Your task to perform on an android device: choose inbox layout in the gmail app Image 0: 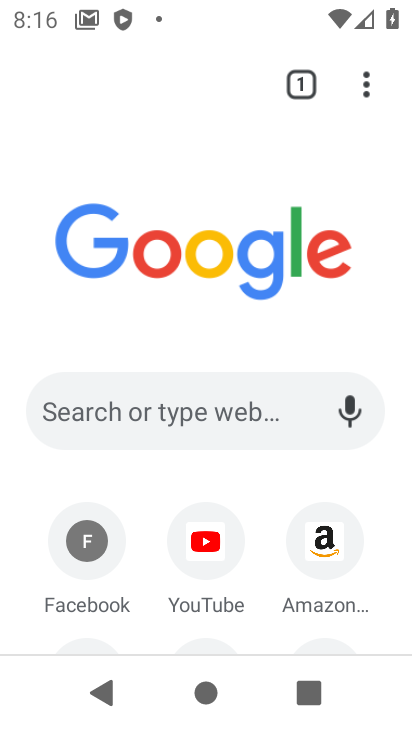
Step 0: press back button
Your task to perform on an android device: choose inbox layout in the gmail app Image 1: 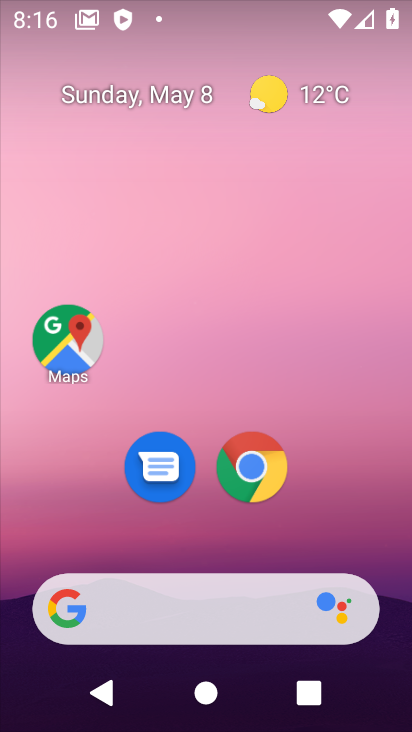
Step 1: drag from (217, 515) to (323, 58)
Your task to perform on an android device: choose inbox layout in the gmail app Image 2: 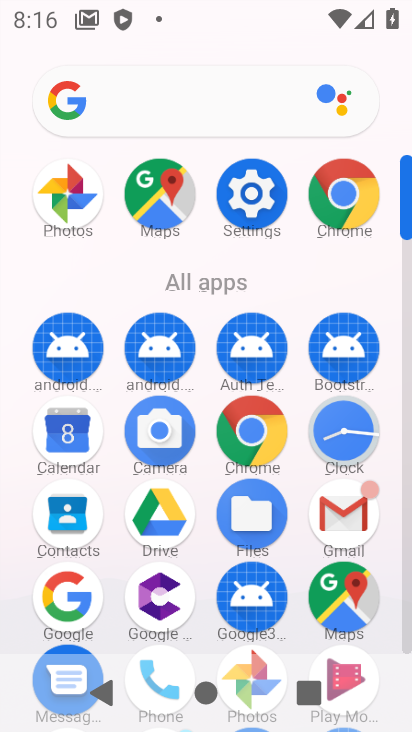
Step 2: click (357, 520)
Your task to perform on an android device: choose inbox layout in the gmail app Image 3: 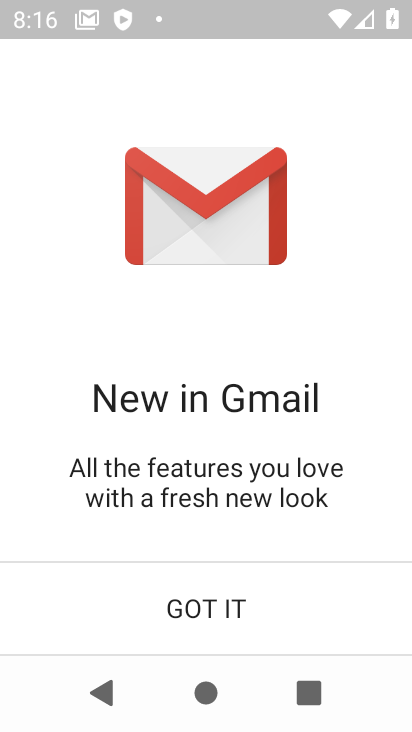
Step 3: click (165, 634)
Your task to perform on an android device: choose inbox layout in the gmail app Image 4: 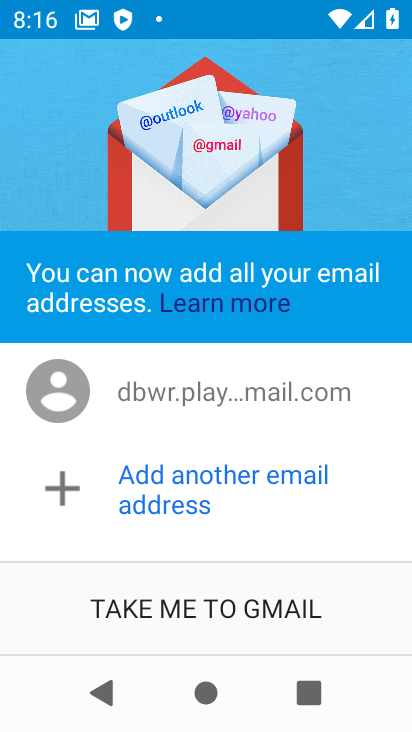
Step 4: click (177, 600)
Your task to perform on an android device: choose inbox layout in the gmail app Image 5: 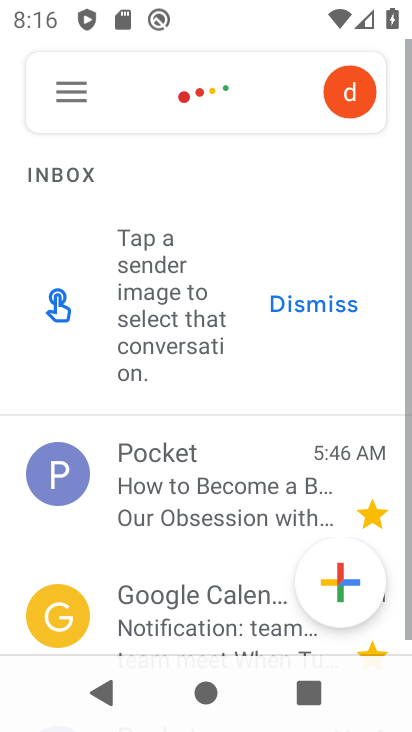
Step 5: click (65, 92)
Your task to perform on an android device: choose inbox layout in the gmail app Image 6: 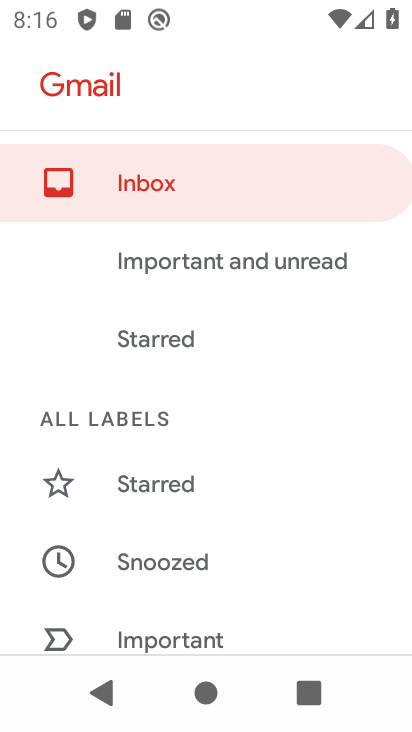
Step 6: drag from (212, 538) to (301, 61)
Your task to perform on an android device: choose inbox layout in the gmail app Image 7: 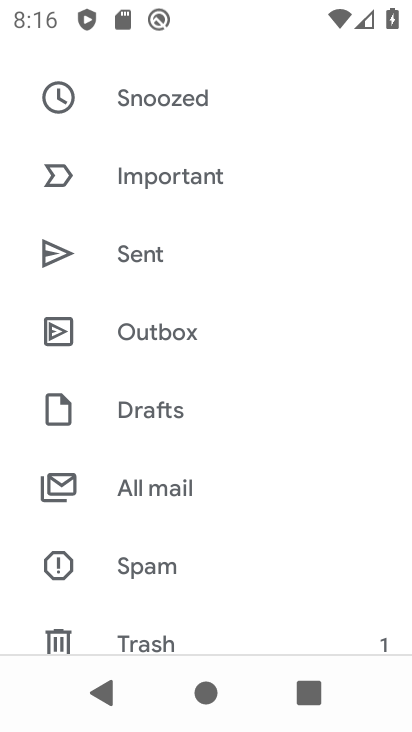
Step 7: drag from (183, 593) to (258, 111)
Your task to perform on an android device: choose inbox layout in the gmail app Image 8: 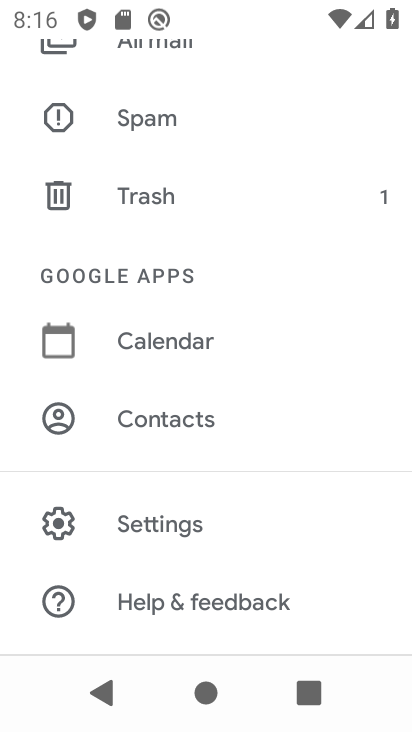
Step 8: click (131, 544)
Your task to perform on an android device: choose inbox layout in the gmail app Image 9: 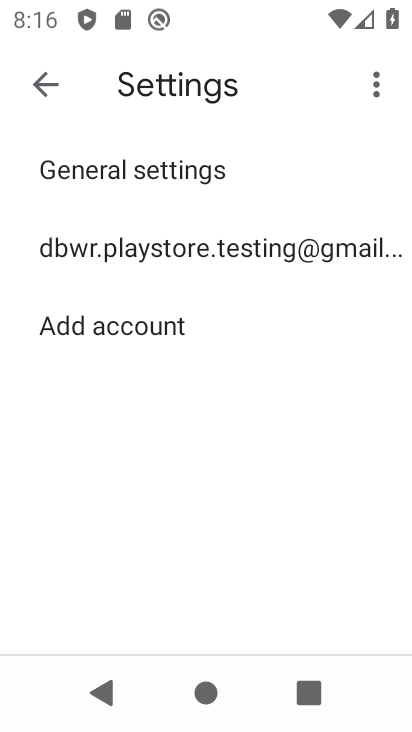
Step 9: click (150, 257)
Your task to perform on an android device: choose inbox layout in the gmail app Image 10: 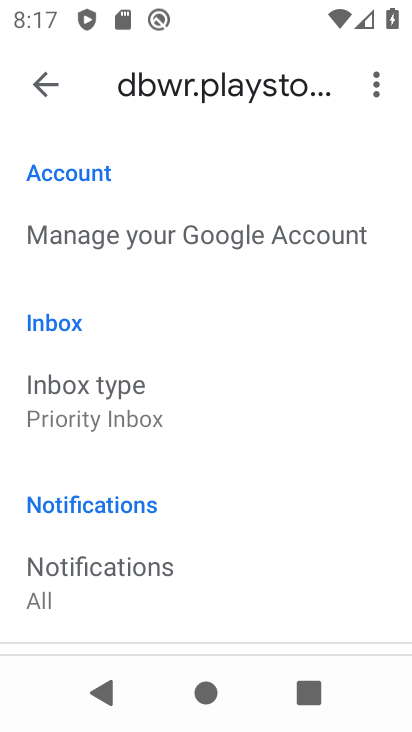
Step 10: click (99, 411)
Your task to perform on an android device: choose inbox layout in the gmail app Image 11: 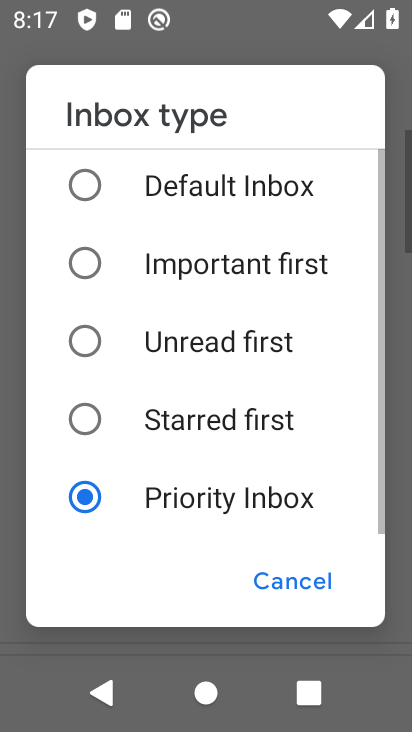
Step 11: click (193, 184)
Your task to perform on an android device: choose inbox layout in the gmail app Image 12: 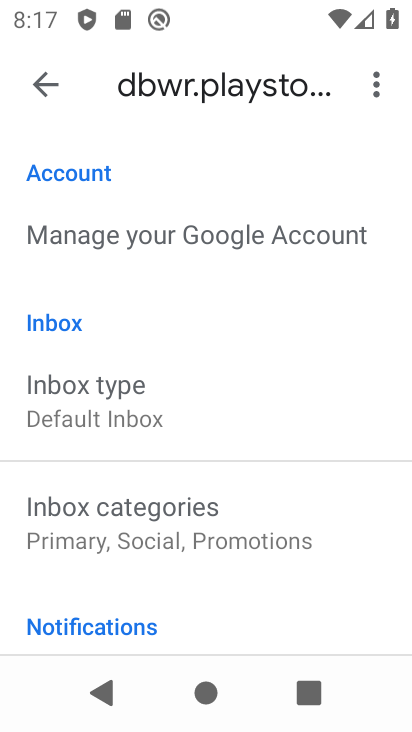
Step 12: task complete